Your task to perform on an android device: see creations saved in the google photos Image 0: 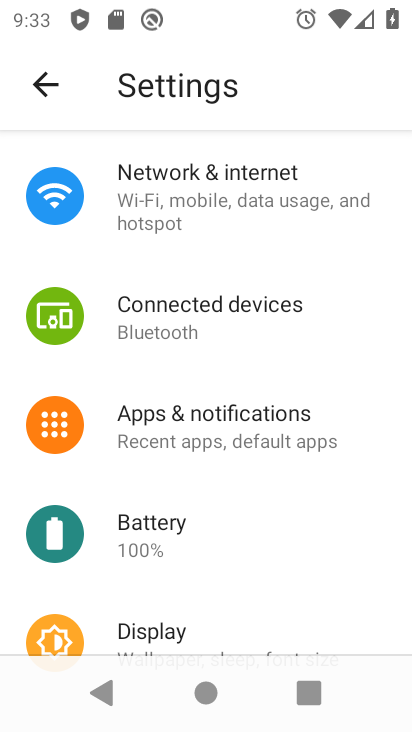
Step 0: press home button
Your task to perform on an android device: see creations saved in the google photos Image 1: 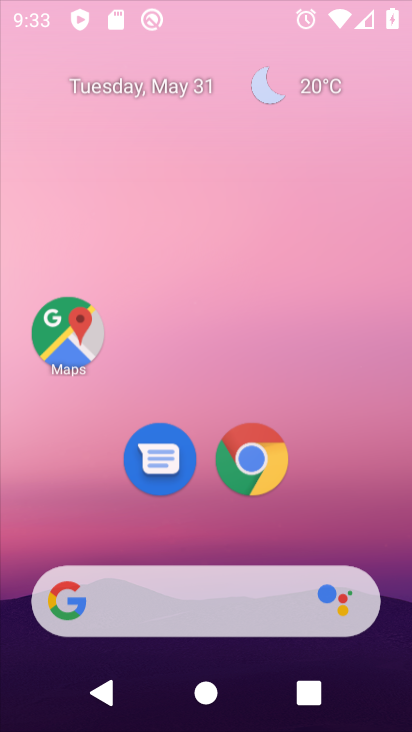
Step 1: drag from (205, 571) to (286, 20)
Your task to perform on an android device: see creations saved in the google photos Image 2: 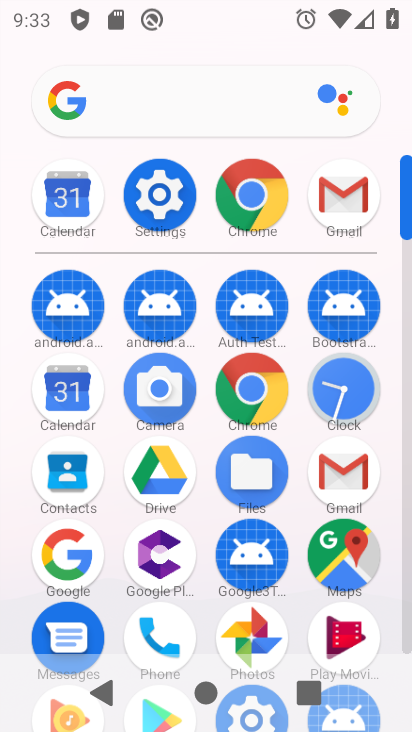
Step 2: click (260, 624)
Your task to perform on an android device: see creations saved in the google photos Image 3: 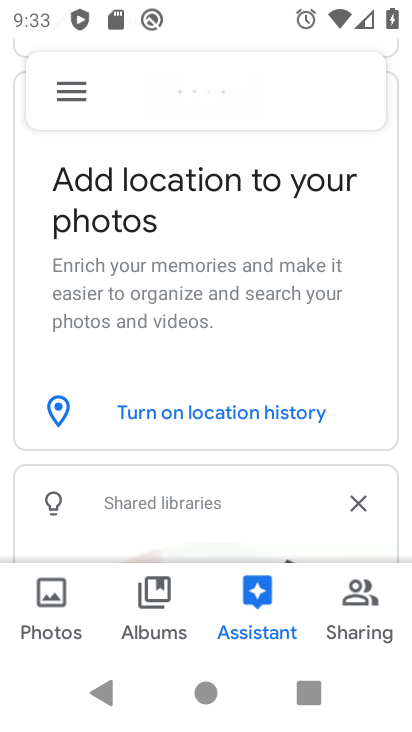
Step 3: drag from (233, 489) to (299, 174)
Your task to perform on an android device: see creations saved in the google photos Image 4: 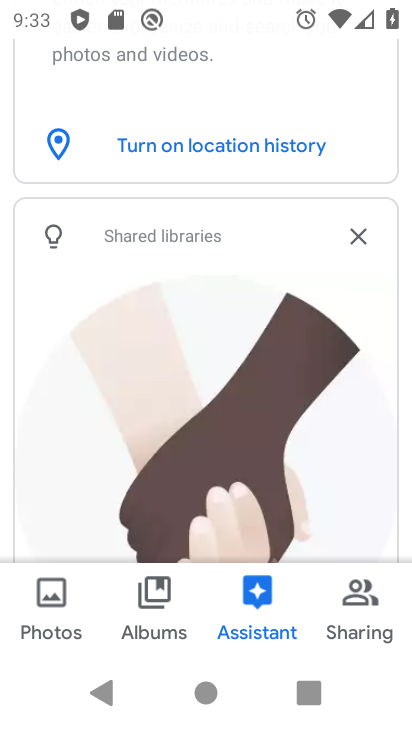
Step 4: click (152, 614)
Your task to perform on an android device: see creations saved in the google photos Image 5: 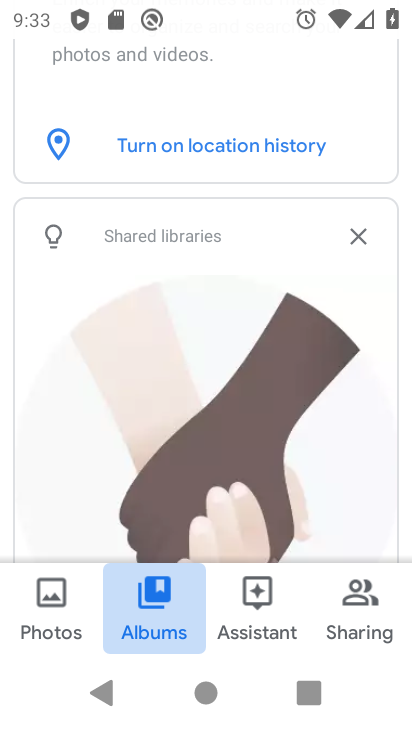
Step 5: click (74, 598)
Your task to perform on an android device: see creations saved in the google photos Image 6: 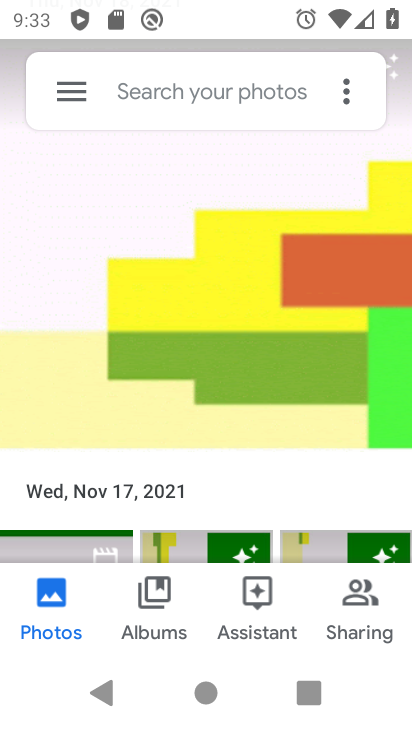
Step 6: click (189, 87)
Your task to perform on an android device: see creations saved in the google photos Image 7: 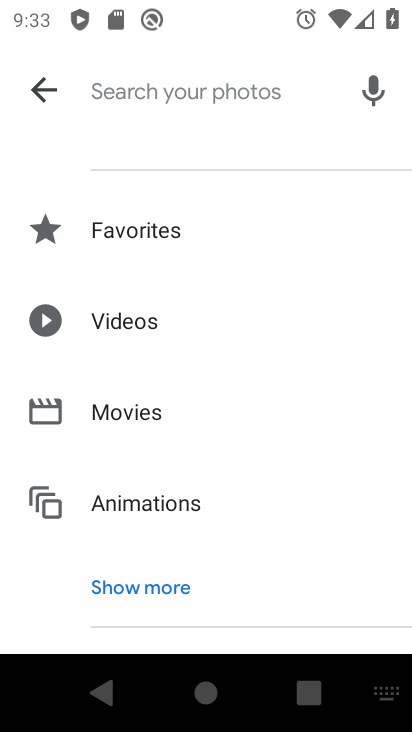
Step 7: click (126, 583)
Your task to perform on an android device: see creations saved in the google photos Image 8: 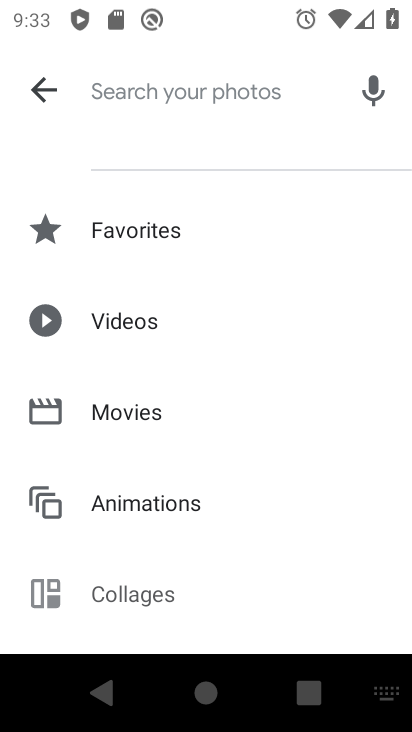
Step 8: drag from (134, 577) to (232, 170)
Your task to perform on an android device: see creations saved in the google photos Image 9: 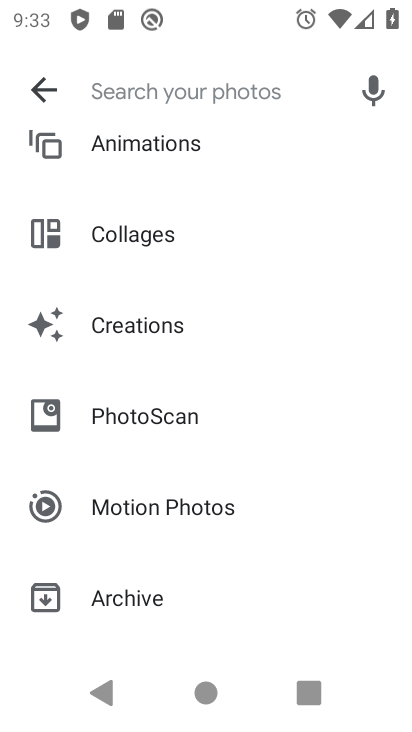
Step 9: drag from (183, 594) to (260, 156)
Your task to perform on an android device: see creations saved in the google photos Image 10: 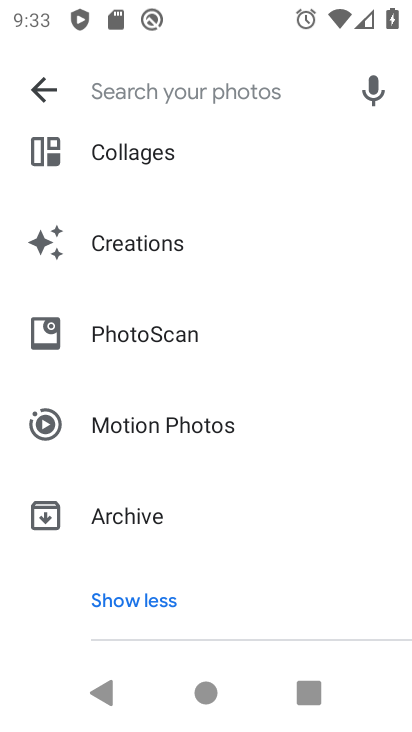
Step 10: drag from (211, 343) to (204, 529)
Your task to perform on an android device: see creations saved in the google photos Image 11: 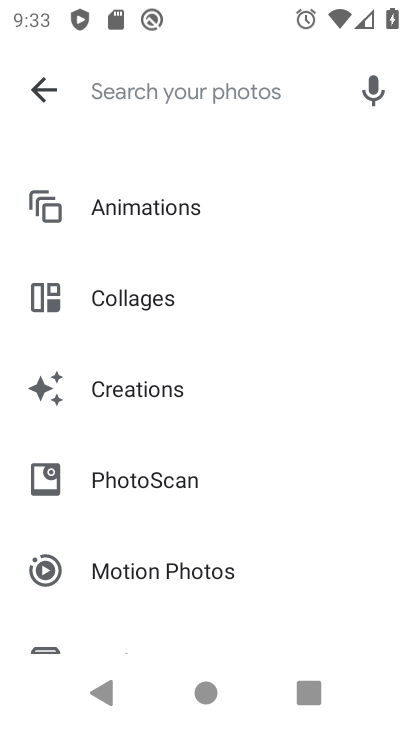
Step 11: click (140, 400)
Your task to perform on an android device: see creations saved in the google photos Image 12: 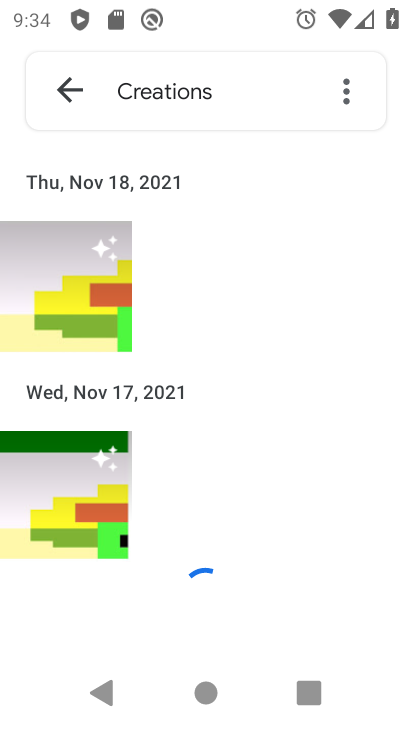
Step 12: drag from (189, 527) to (232, 291)
Your task to perform on an android device: see creations saved in the google photos Image 13: 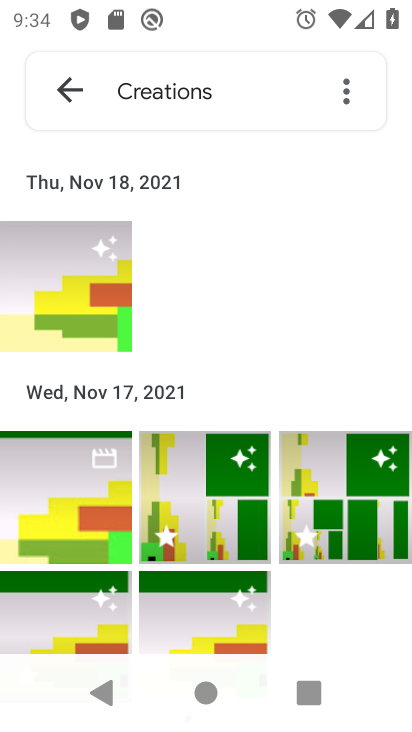
Step 13: drag from (209, 529) to (237, 232)
Your task to perform on an android device: see creations saved in the google photos Image 14: 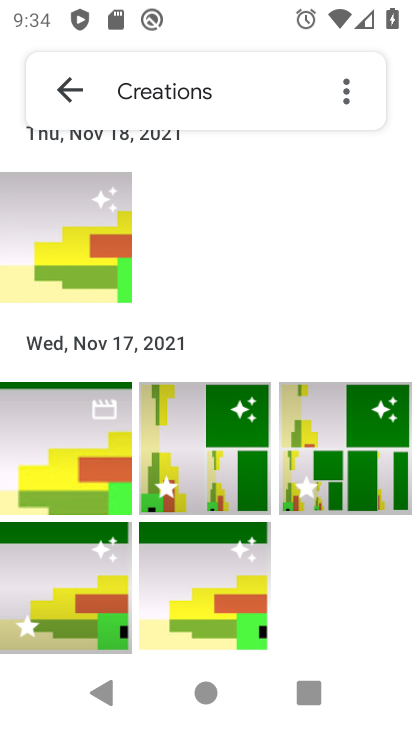
Step 14: click (90, 407)
Your task to perform on an android device: see creations saved in the google photos Image 15: 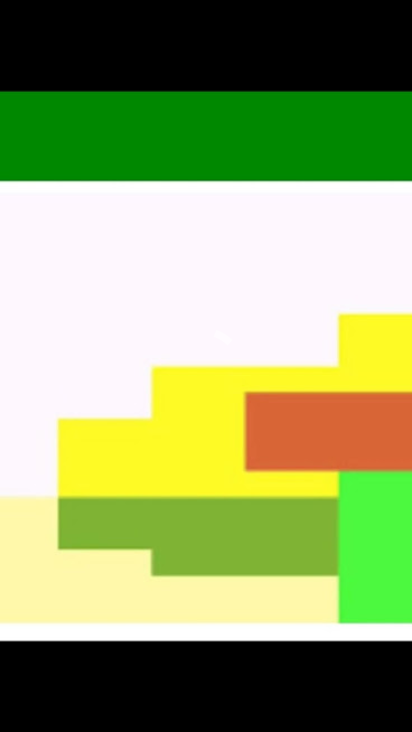
Step 15: drag from (342, 413) to (0, 388)
Your task to perform on an android device: see creations saved in the google photos Image 16: 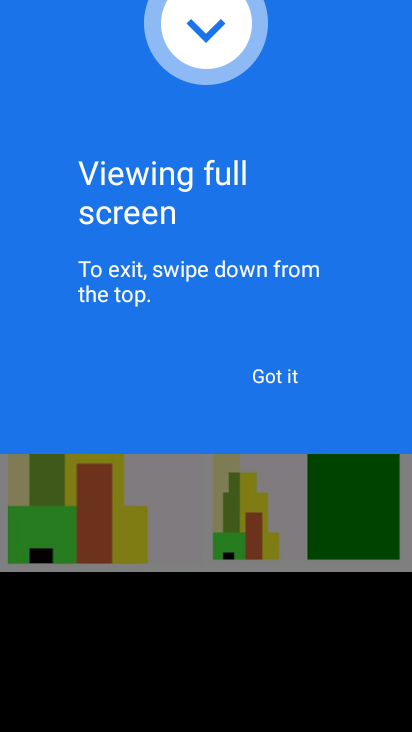
Step 16: click (287, 380)
Your task to perform on an android device: see creations saved in the google photos Image 17: 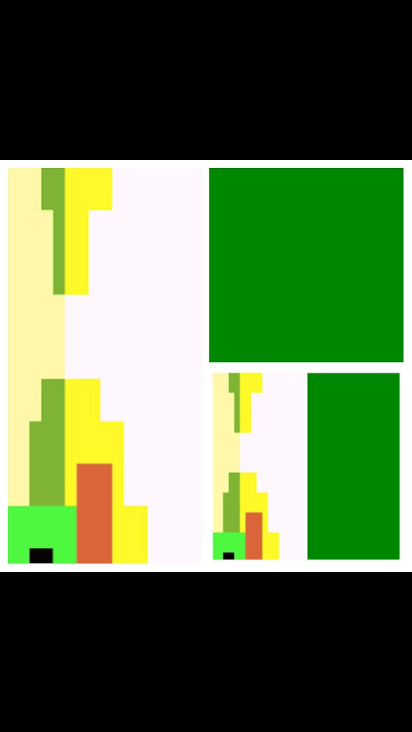
Step 17: drag from (258, 545) to (404, 508)
Your task to perform on an android device: see creations saved in the google photos Image 18: 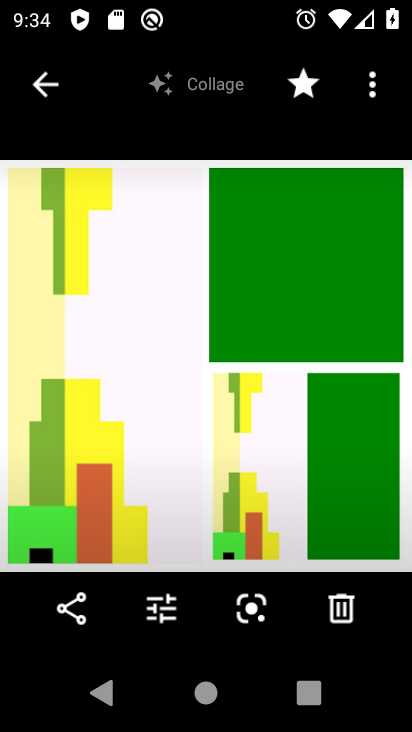
Step 18: drag from (230, 458) to (28, 442)
Your task to perform on an android device: see creations saved in the google photos Image 19: 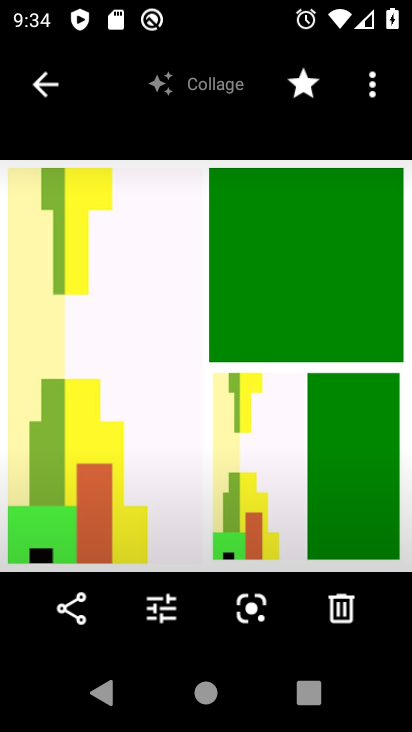
Step 19: click (47, 80)
Your task to perform on an android device: see creations saved in the google photos Image 20: 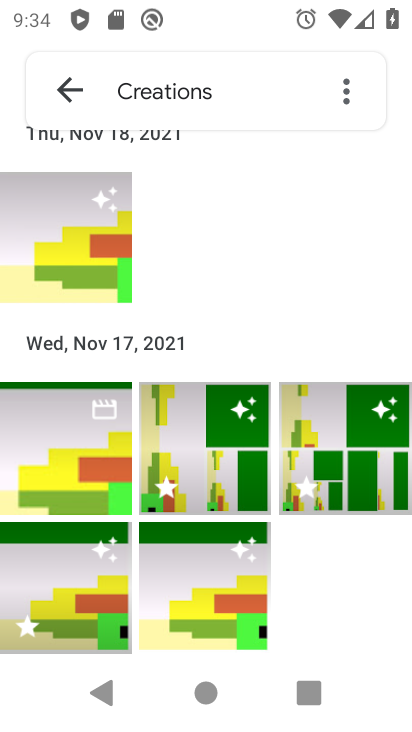
Step 20: task complete